Your task to perform on an android device: open app "Viber Messenger" Image 0: 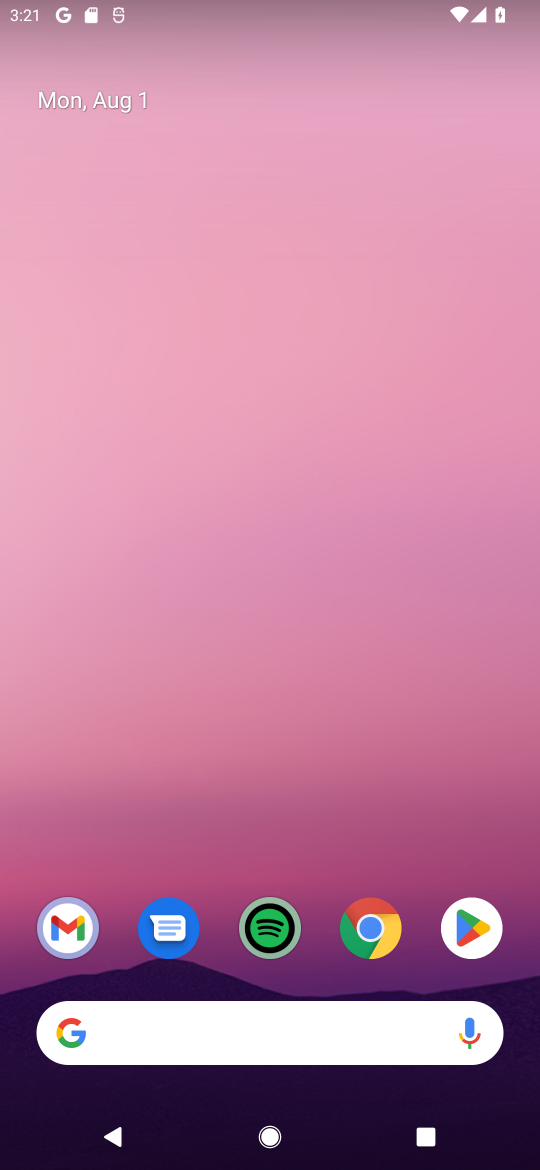
Step 0: press home button
Your task to perform on an android device: open app "Viber Messenger" Image 1: 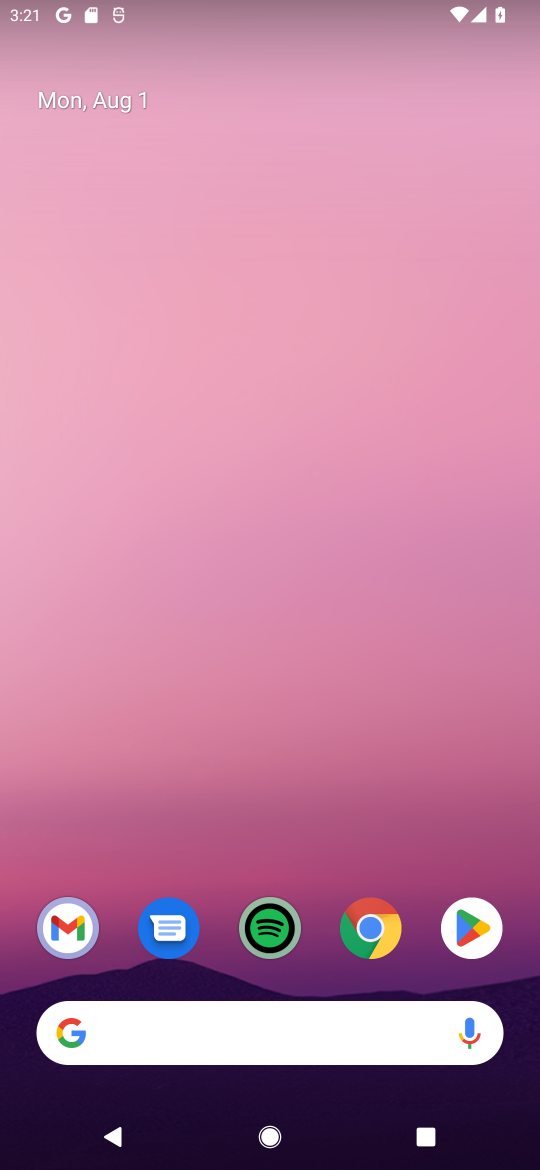
Step 1: click (460, 962)
Your task to perform on an android device: open app "Viber Messenger" Image 2: 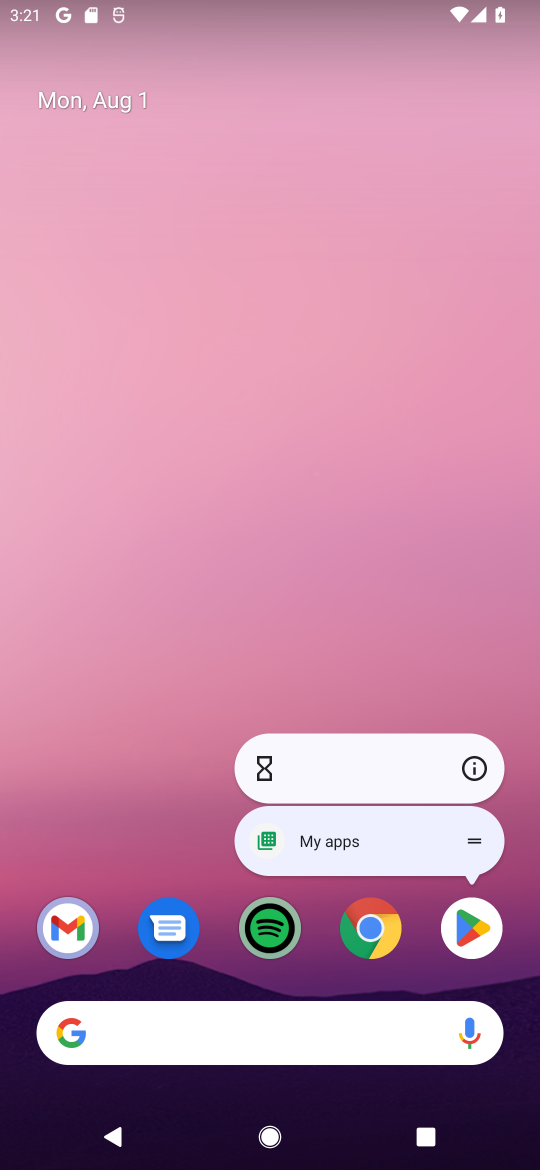
Step 2: click (474, 938)
Your task to perform on an android device: open app "Viber Messenger" Image 3: 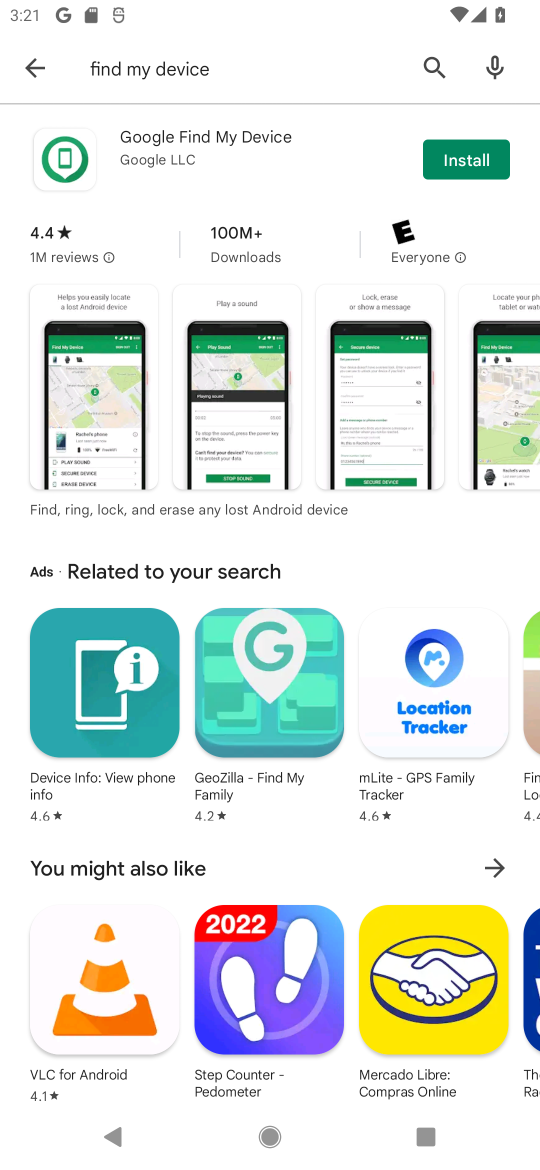
Step 3: click (428, 57)
Your task to perform on an android device: open app "Viber Messenger" Image 4: 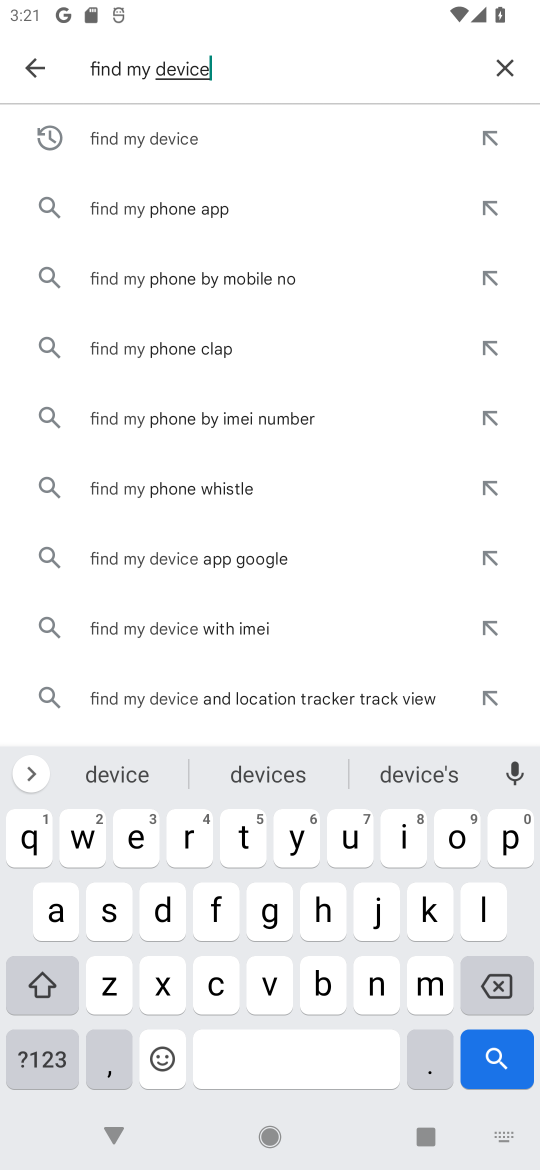
Step 4: click (498, 72)
Your task to perform on an android device: open app "Viber Messenger" Image 5: 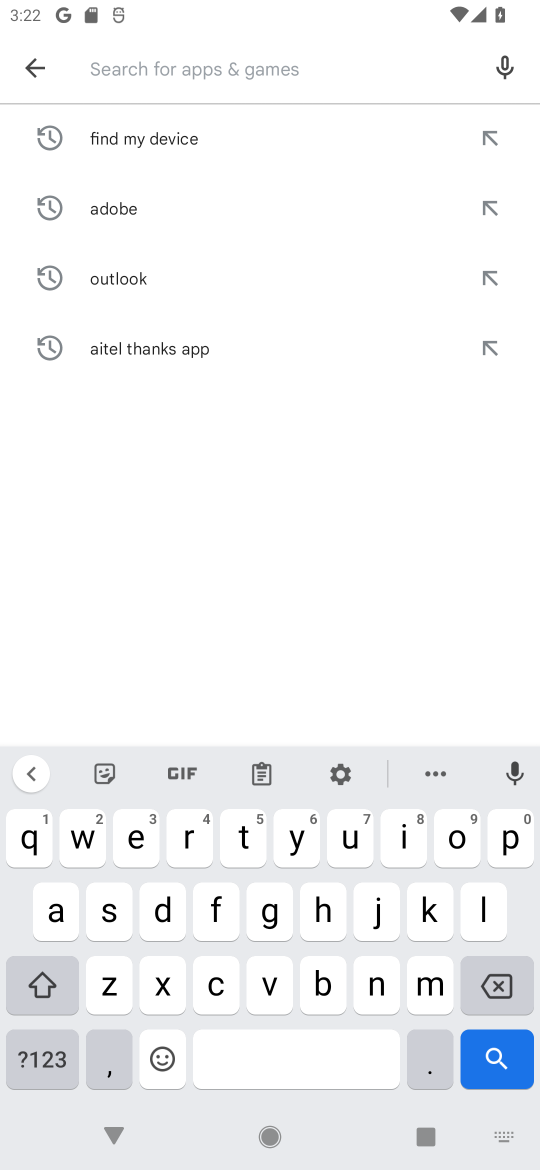
Step 5: click (271, 999)
Your task to perform on an android device: open app "Viber Messenger" Image 6: 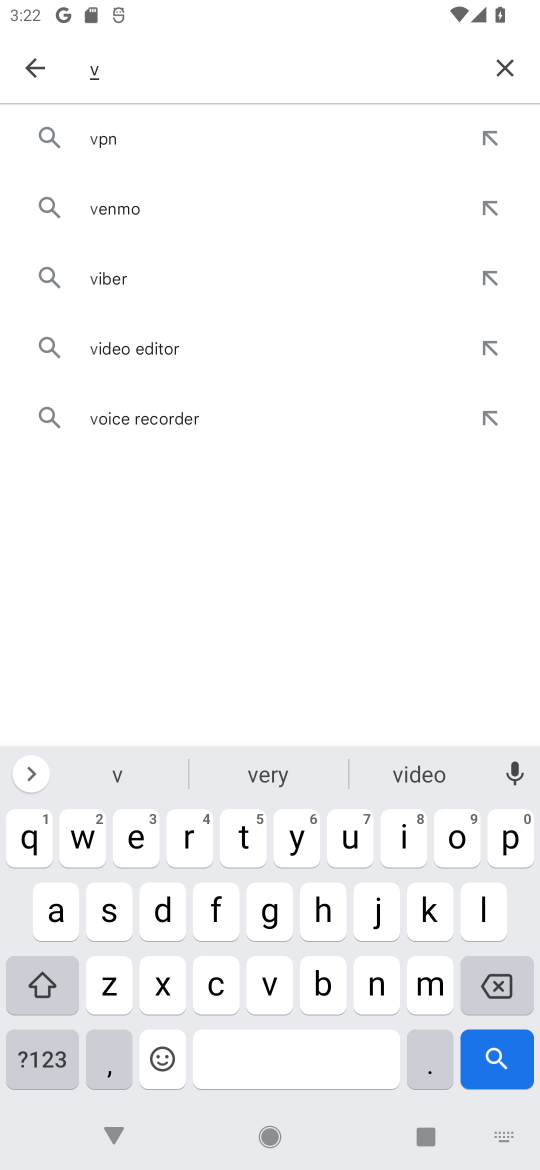
Step 6: click (402, 837)
Your task to perform on an android device: open app "Viber Messenger" Image 7: 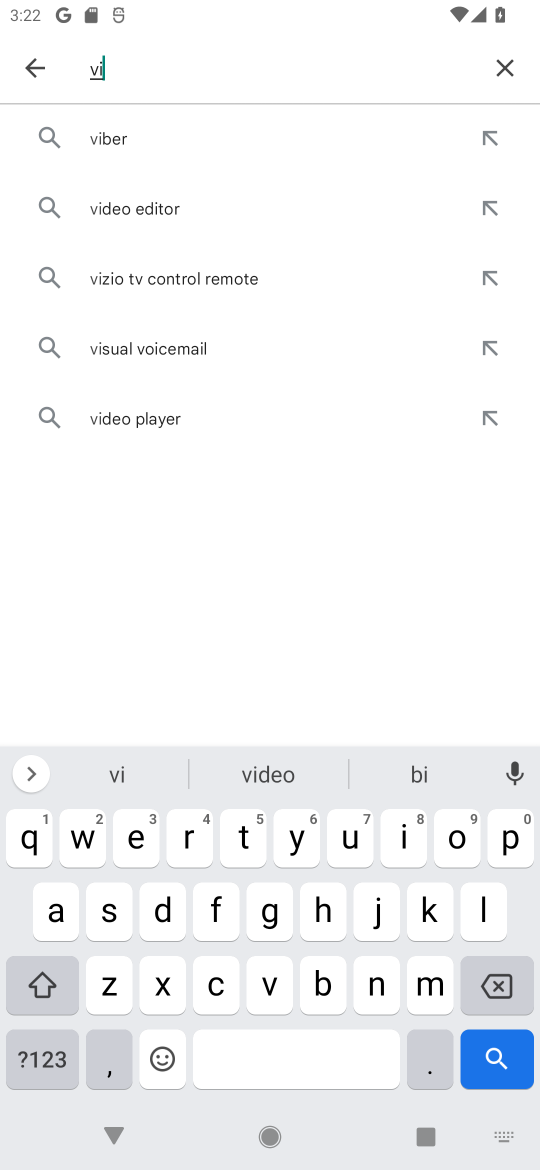
Step 7: click (134, 152)
Your task to perform on an android device: open app "Viber Messenger" Image 8: 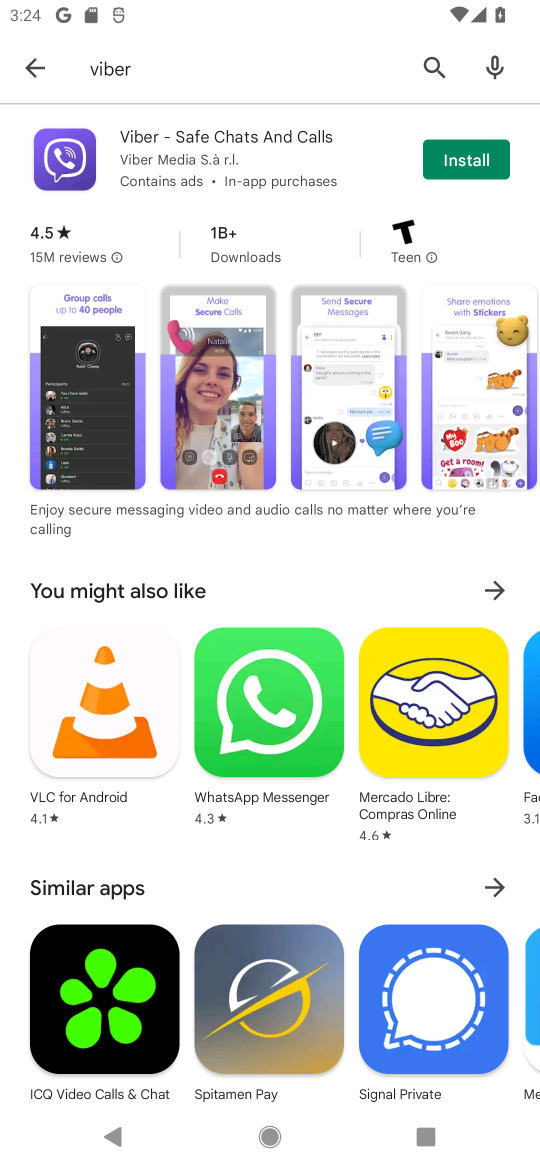
Step 8: task complete